Your task to perform on an android device: change your default location settings in chrome Image 0: 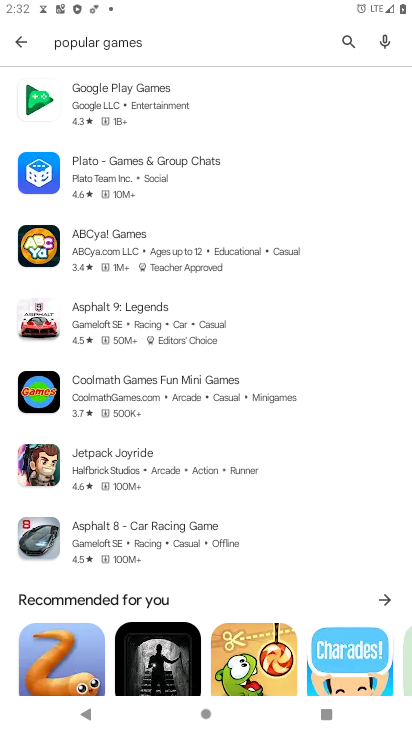
Step 0: press home button
Your task to perform on an android device: change your default location settings in chrome Image 1: 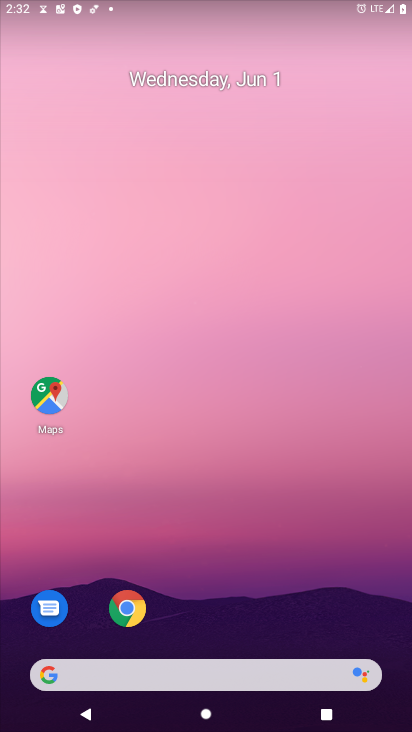
Step 1: drag from (258, 582) to (331, 40)
Your task to perform on an android device: change your default location settings in chrome Image 2: 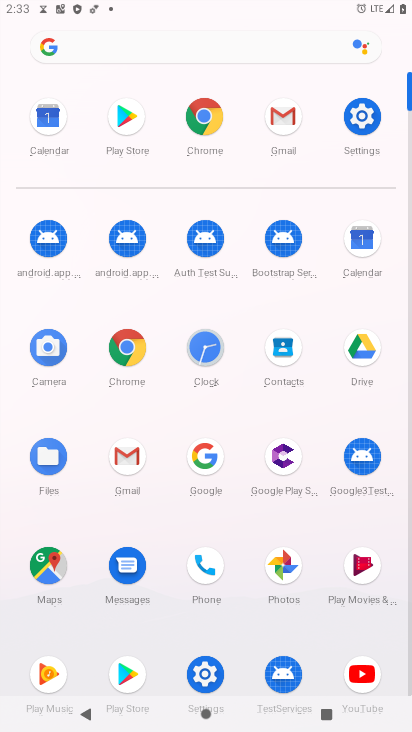
Step 2: click (201, 110)
Your task to perform on an android device: change your default location settings in chrome Image 3: 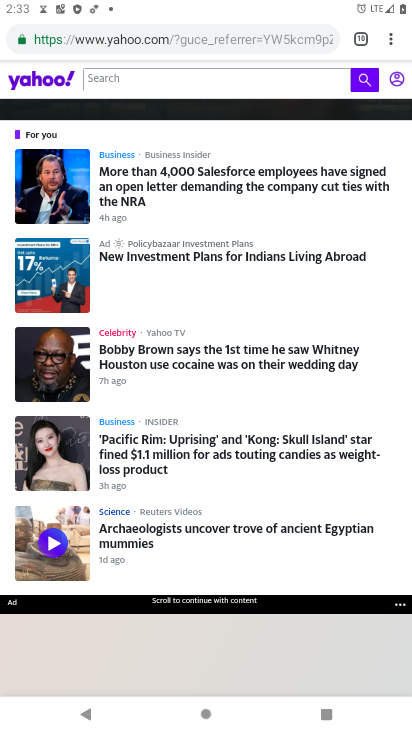
Step 3: click (389, 41)
Your task to perform on an android device: change your default location settings in chrome Image 4: 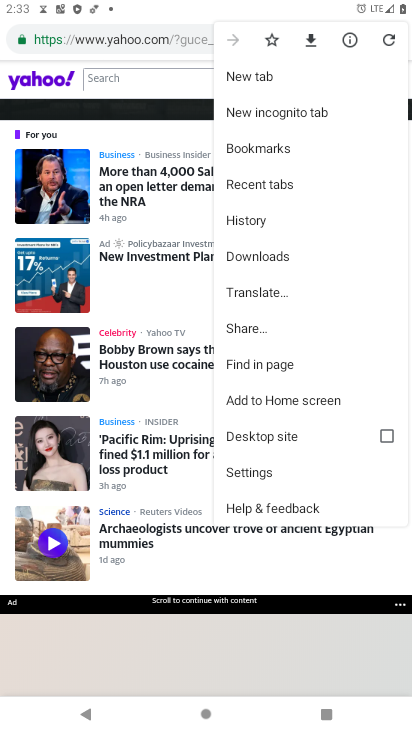
Step 4: click (283, 473)
Your task to perform on an android device: change your default location settings in chrome Image 5: 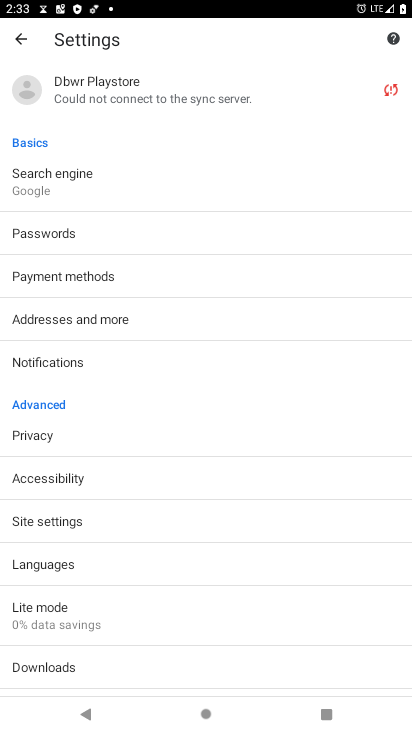
Step 5: drag from (85, 539) to (50, 207)
Your task to perform on an android device: change your default location settings in chrome Image 6: 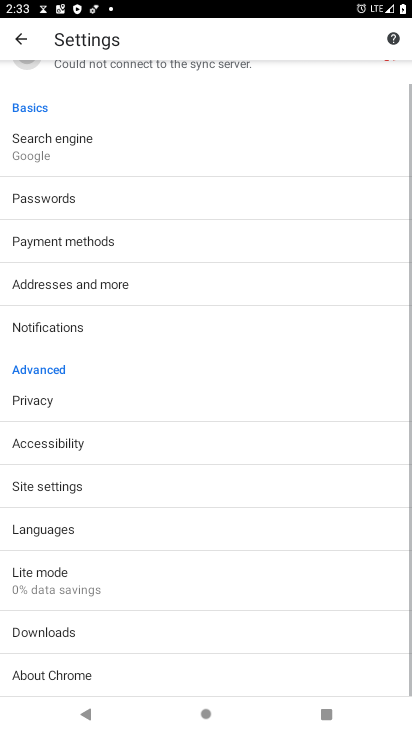
Step 6: drag from (99, 602) to (144, 203)
Your task to perform on an android device: change your default location settings in chrome Image 7: 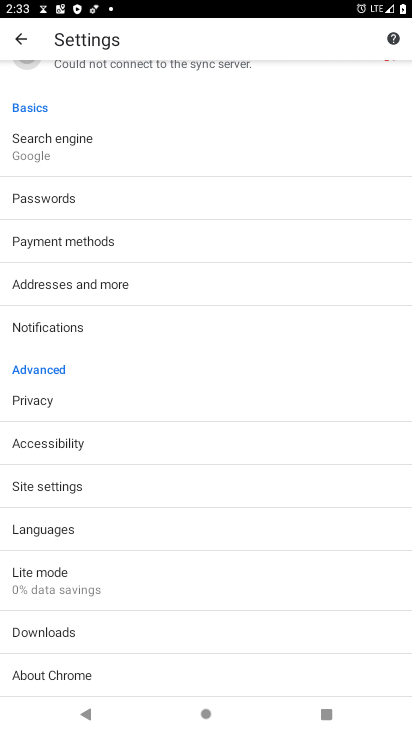
Step 7: click (170, 492)
Your task to perform on an android device: change your default location settings in chrome Image 8: 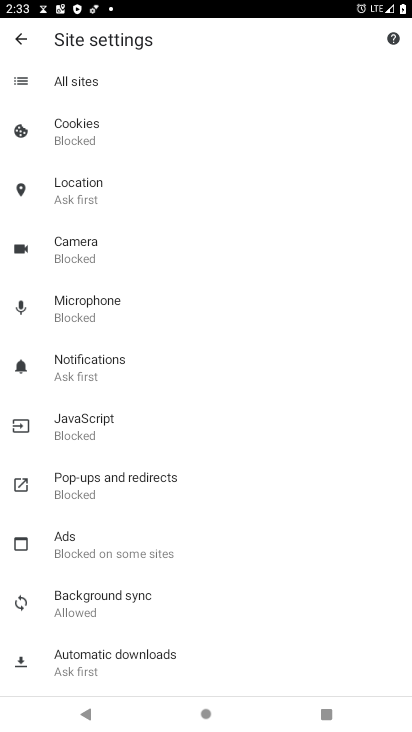
Step 8: click (162, 185)
Your task to perform on an android device: change your default location settings in chrome Image 9: 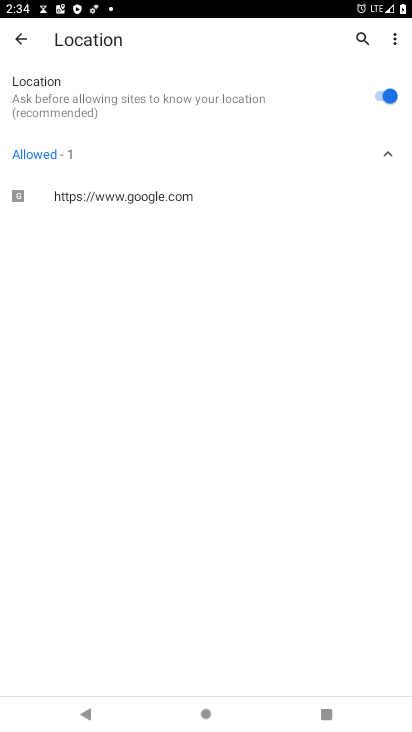
Step 9: press back button
Your task to perform on an android device: change your default location settings in chrome Image 10: 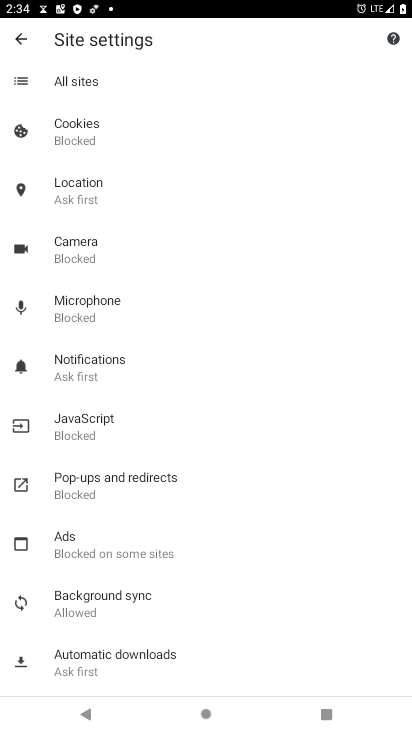
Step 10: click (71, 194)
Your task to perform on an android device: change your default location settings in chrome Image 11: 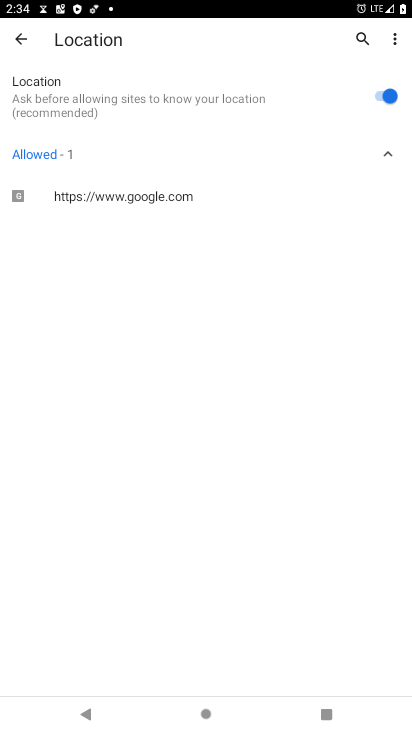
Step 11: click (338, 72)
Your task to perform on an android device: change your default location settings in chrome Image 12: 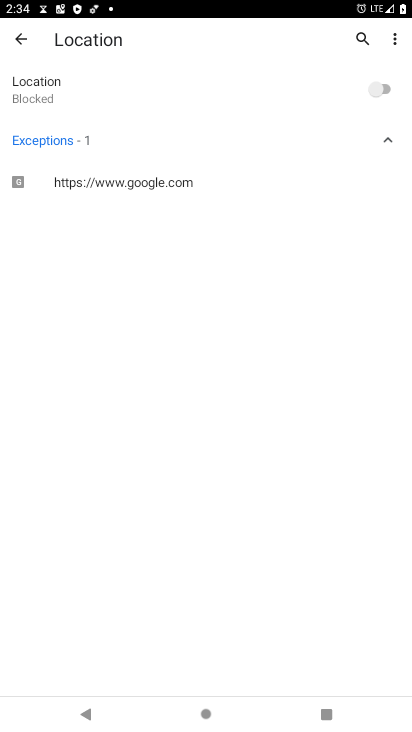
Step 12: task complete